Your task to perform on an android device: toggle priority inbox in the gmail app Image 0: 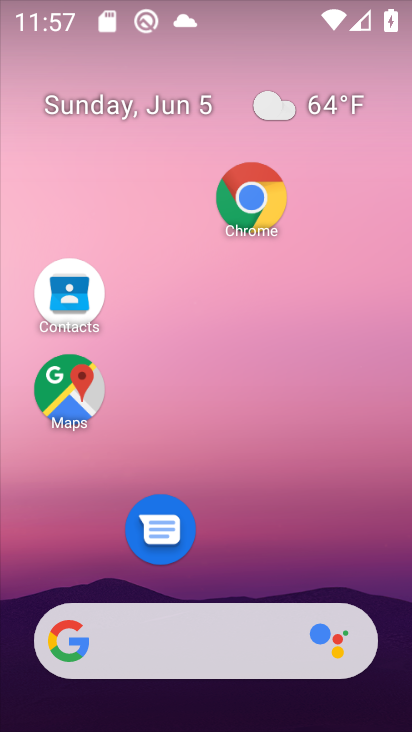
Step 0: drag from (291, 500) to (254, 5)
Your task to perform on an android device: toggle priority inbox in the gmail app Image 1: 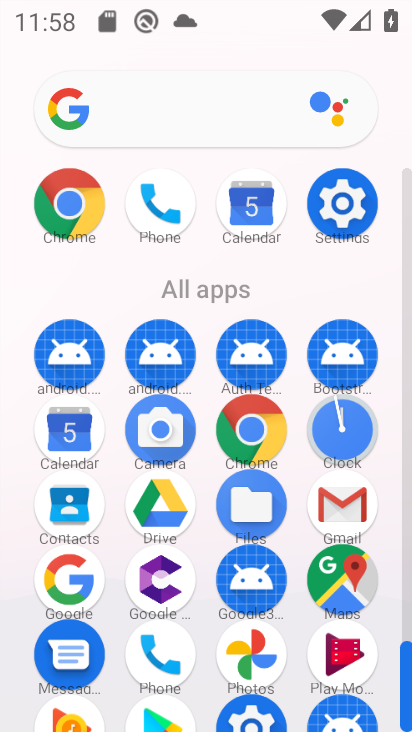
Step 1: click (352, 512)
Your task to perform on an android device: toggle priority inbox in the gmail app Image 2: 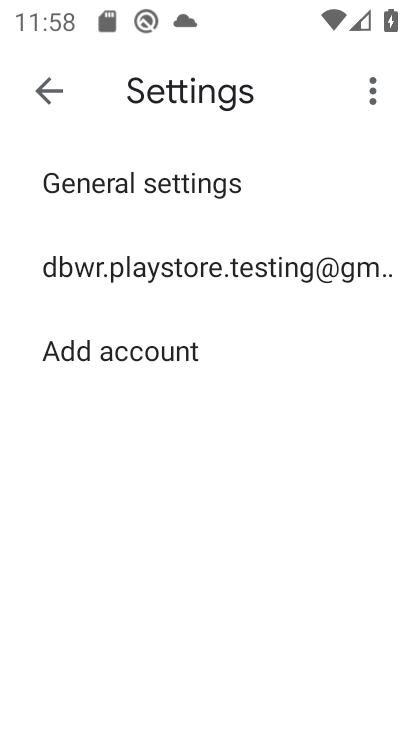
Step 2: click (88, 234)
Your task to perform on an android device: toggle priority inbox in the gmail app Image 3: 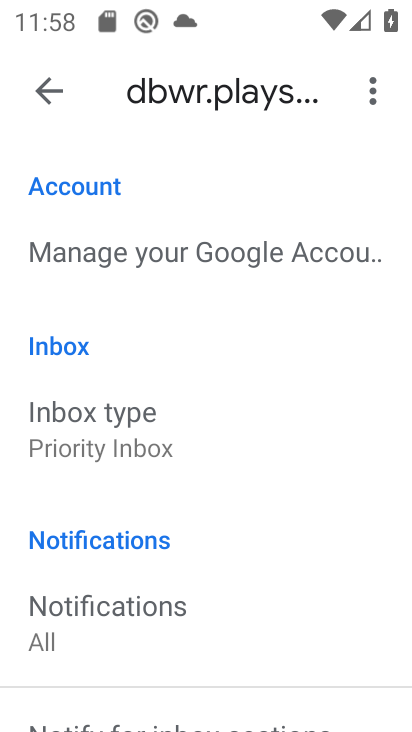
Step 3: click (83, 444)
Your task to perform on an android device: toggle priority inbox in the gmail app Image 4: 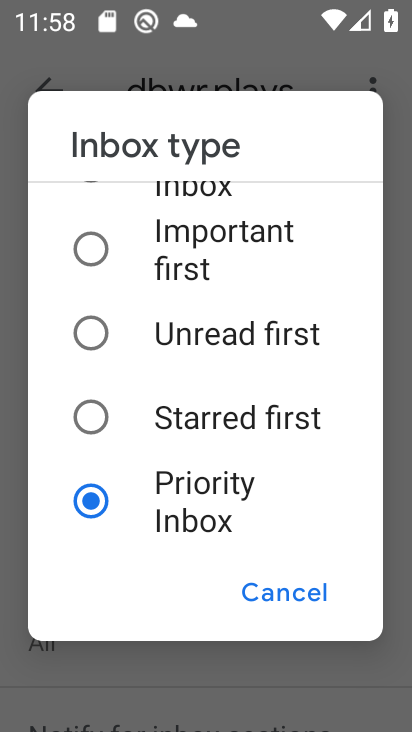
Step 4: drag from (163, 277) to (178, 529)
Your task to perform on an android device: toggle priority inbox in the gmail app Image 5: 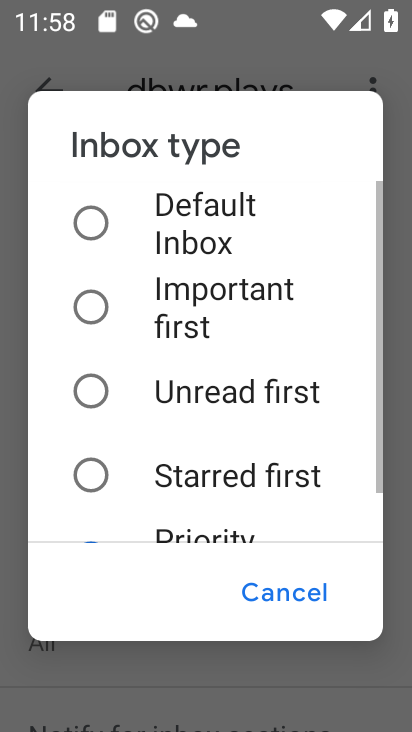
Step 5: click (155, 201)
Your task to perform on an android device: toggle priority inbox in the gmail app Image 6: 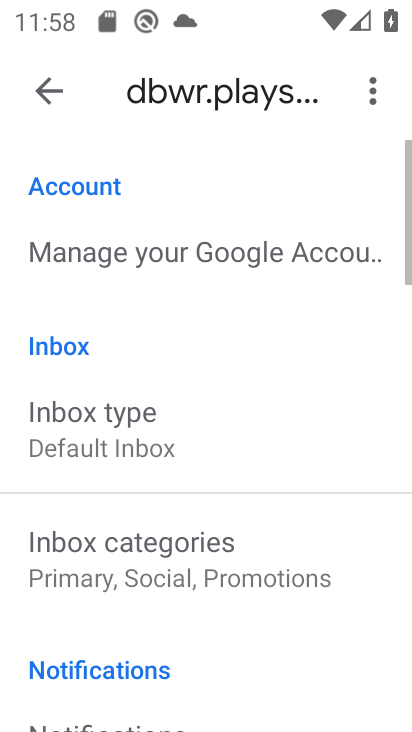
Step 6: task complete